Your task to perform on an android device: Check the news Image 0: 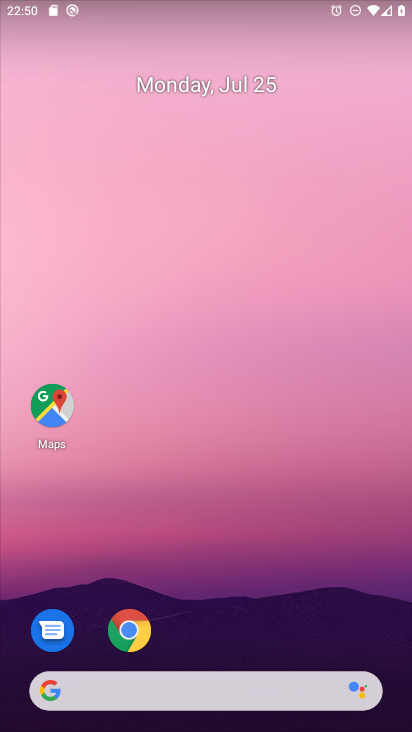
Step 0: drag from (331, 611) to (285, 106)
Your task to perform on an android device: Check the news Image 1: 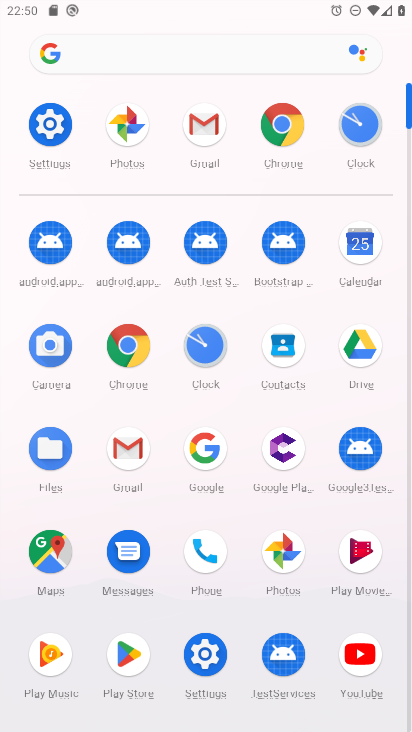
Step 1: click (287, 124)
Your task to perform on an android device: Check the news Image 2: 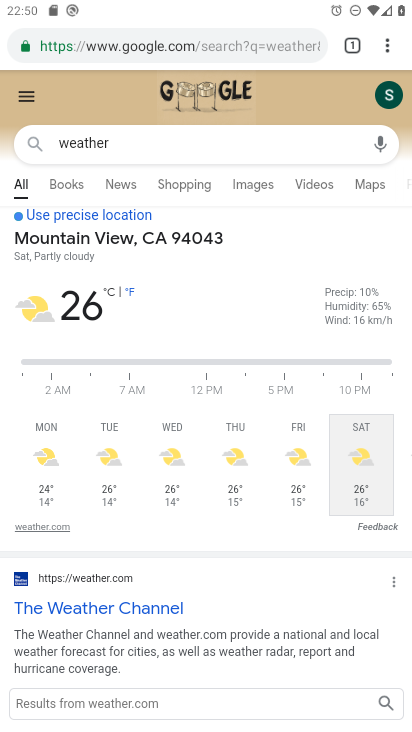
Step 2: click (254, 38)
Your task to perform on an android device: Check the news Image 3: 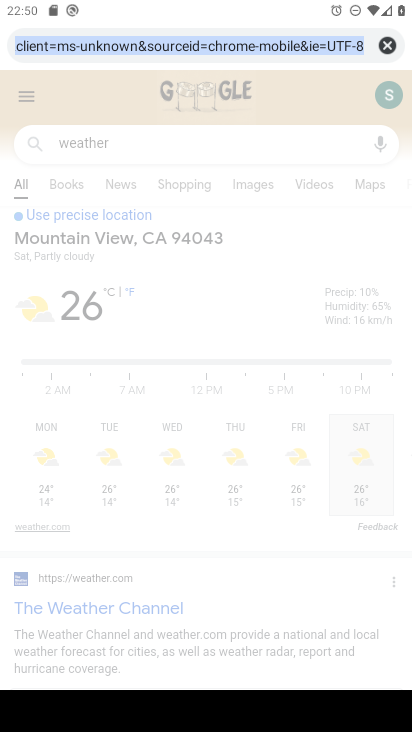
Step 3: type "news"
Your task to perform on an android device: Check the news Image 4: 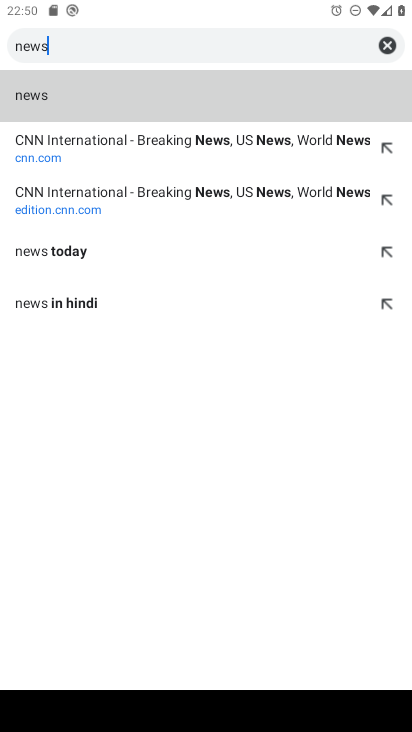
Step 4: click (56, 103)
Your task to perform on an android device: Check the news Image 5: 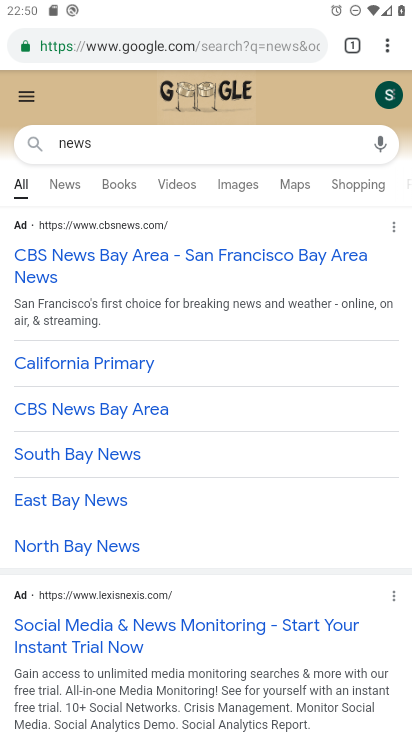
Step 5: drag from (248, 613) to (249, 204)
Your task to perform on an android device: Check the news Image 6: 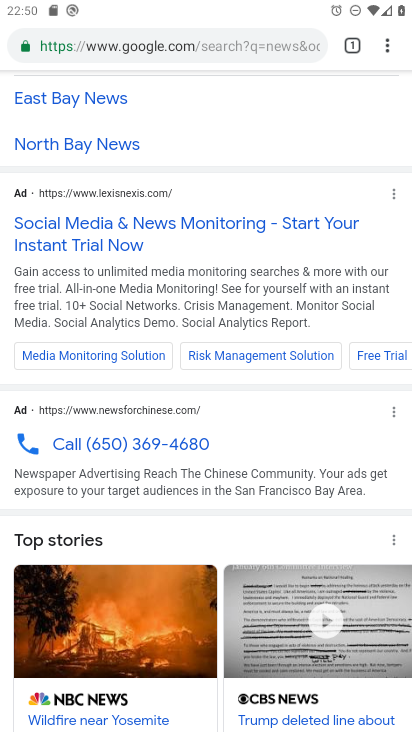
Step 6: drag from (182, 119) to (250, 616)
Your task to perform on an android device: Check the news Image 7: 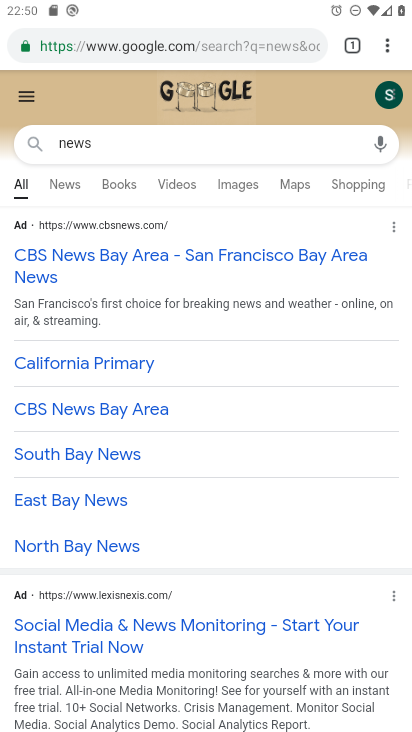
Step 7: drag from (202, 530) to (258, 183)
Your task to perform on an android device: Check the news Image 8: 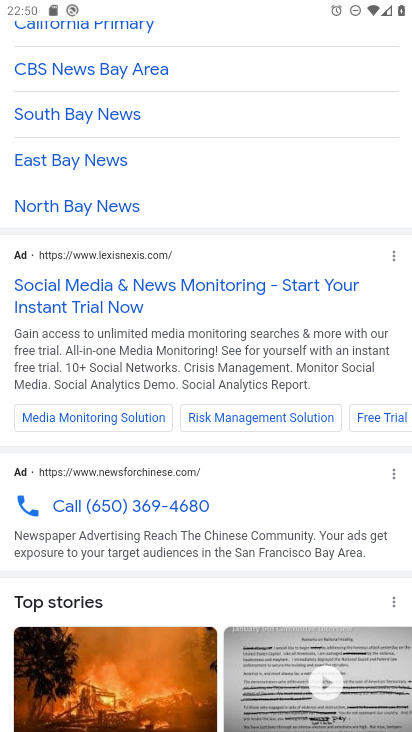
Step 8: drag from (213, 524) to (264, 148)
Your task to perform on an android device: Check the news Image 9: 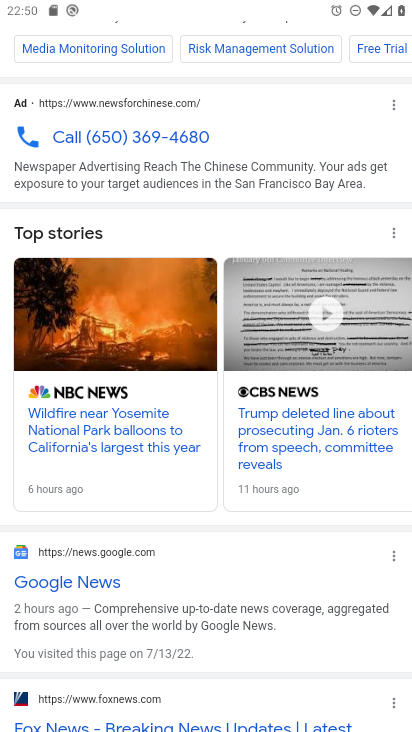
Step 9: click (93, 585)
Your task to perform on an android device: Check the news Image 10: 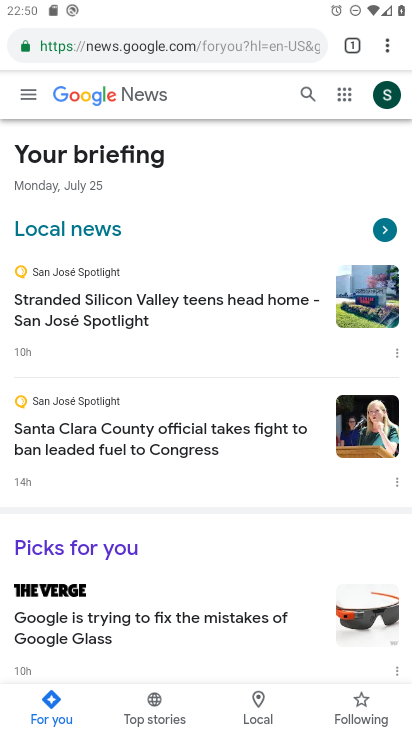
Step 10: task complete